Your task to perform on an android device: Show me recent news Image 0: 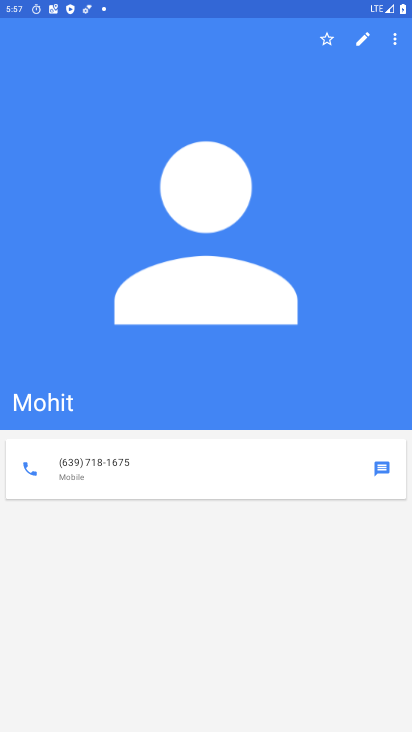
Step 0: press home button
Your task to perform on an android device: Show me recent news Image 1: 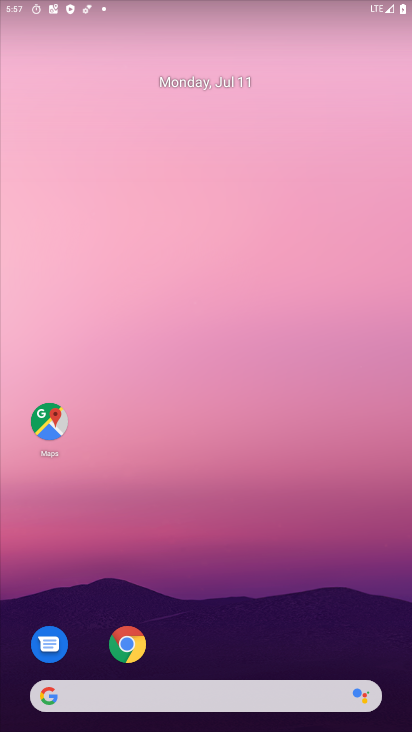
Step 1: drag from (251, 685) to (333, 6)
Your task to perform on an android device: Show me recent news Image 2: 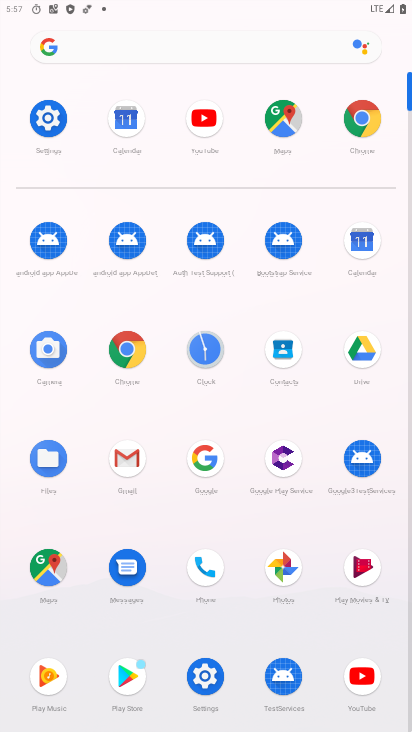
Step 2: click (124, 344)
Your task to perform on an android device: Show me recent news Image 3: 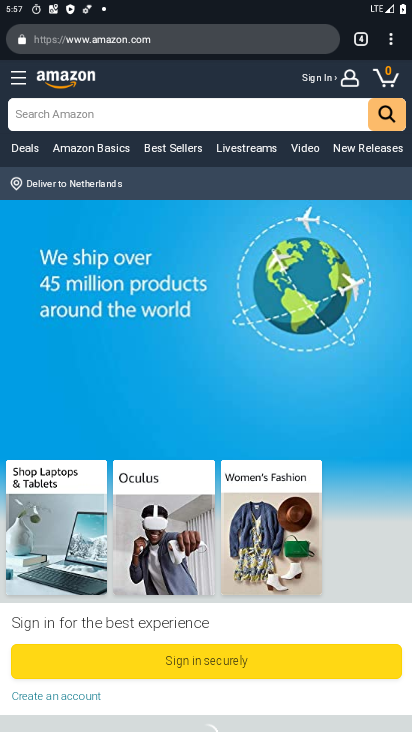
Step 3: click (188, 37)
Your task to perform on an android device: Show me recent news Image 4: 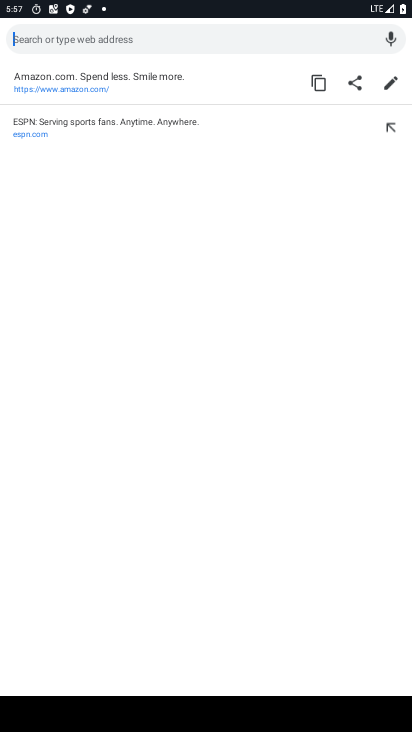
Step 4: type "show me recent news"
Your task to perform on an android device: Show me recent news Image 5: 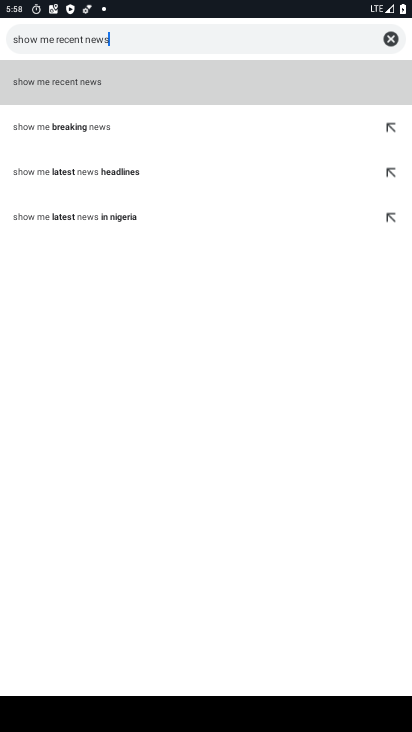
Step 5: click (124, 88)
Your task to perform on an android device: Show me recent news Image 6: 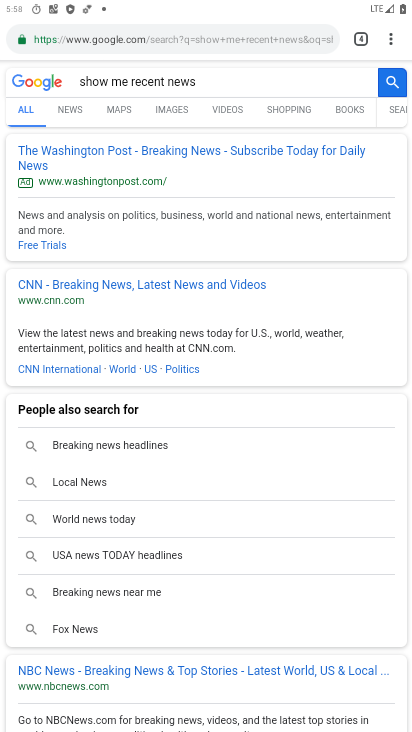
Step 6: task complete